Your task to perform on an android device: Open Android settings Image 0: 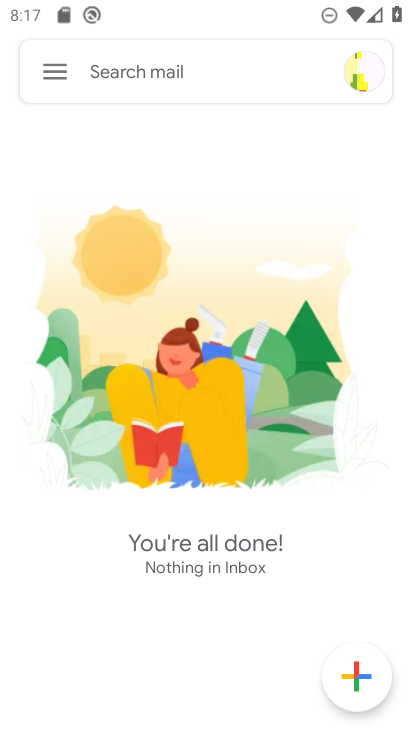
Step 0: press back button
Your task to perform on an android device: Open Android settings Image 1: 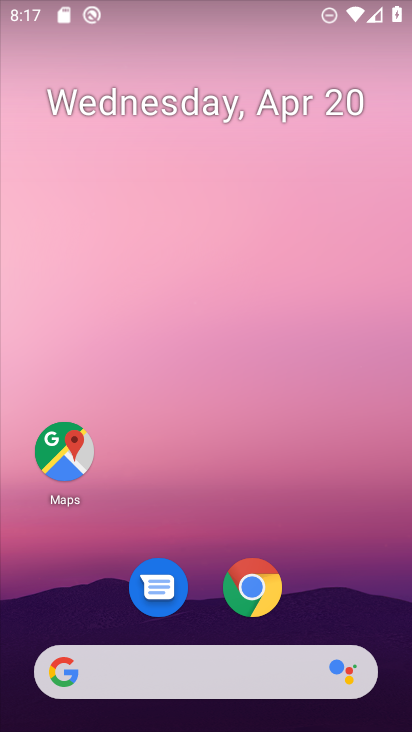
Step 1: drag from (340, 618) to (274, 2)
Your task to perform on an android device: Open Android settings Image 2: 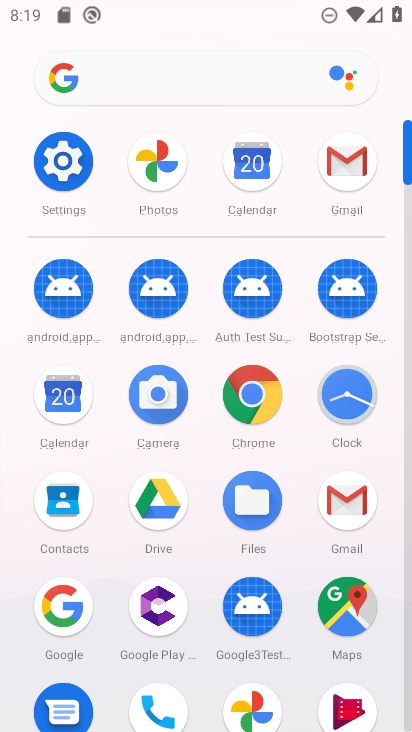
Step 2: click (45, 182)
Your task to perform on an android device: Open Android settings Image 3: 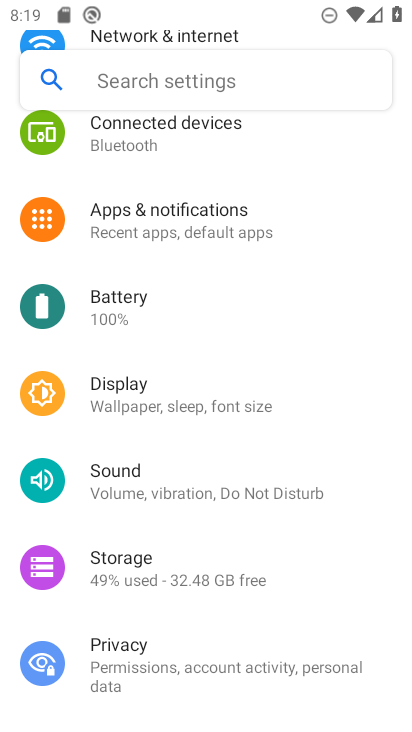
Step 3: drag from (45, 182) to (83, 182)
Your task to perform on an android device: Open Android settings Image 4: 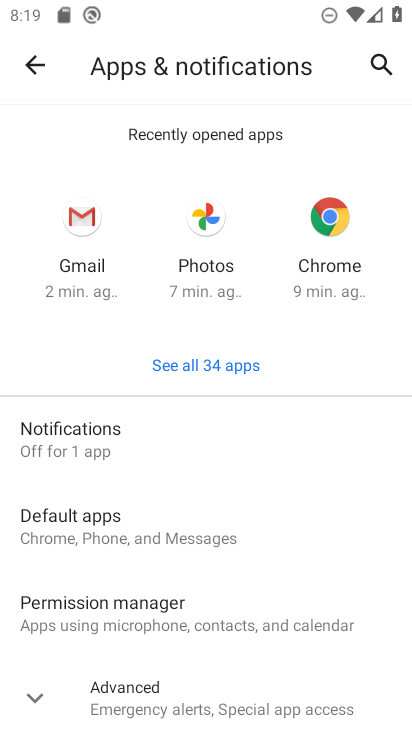
Step 4: click (29, 66)
Your task to perform on an android device: Open Android settings Image 5: 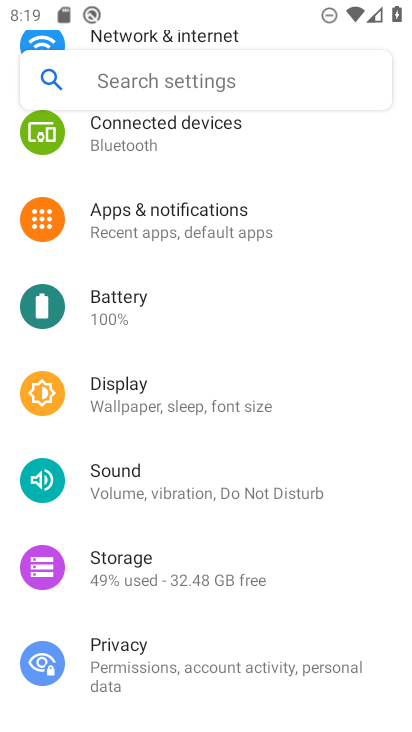
Step 5: drag from (238, 638) to (243, 222)
Your task to perform on an android device: Open Android settings Image 6: 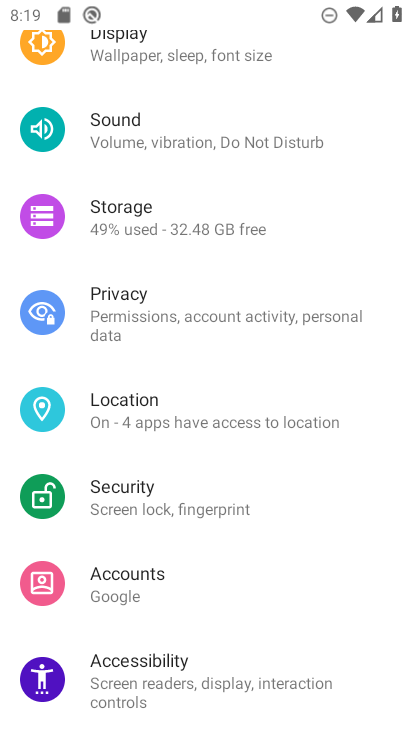
Step 6: drag from (240, 678) to (261, 266)
Your task to perform on an android device: Open Android settings Image 7: 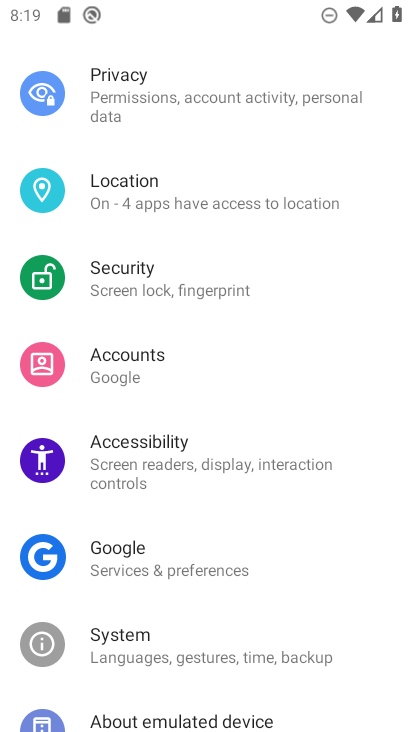
Step 7: drag from (226, 608) to (266, 268)
Your task to perform on an android device: Open Android settings Image 8: 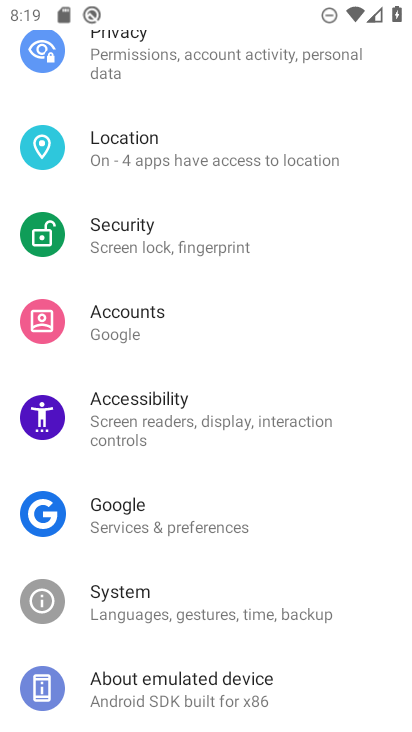
Step 8: click (206, 674)
Your task to perform on an android device: Open Android settings Image 9: 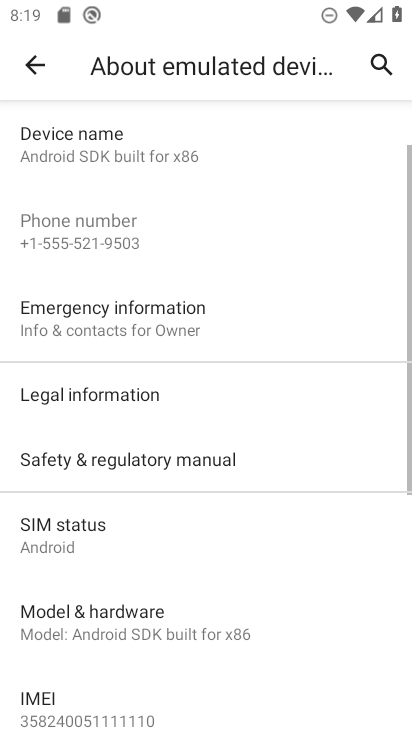
Step 9: task complete